Your task to perform on an android device: Where can I buy a nice beach tent? Image 0: 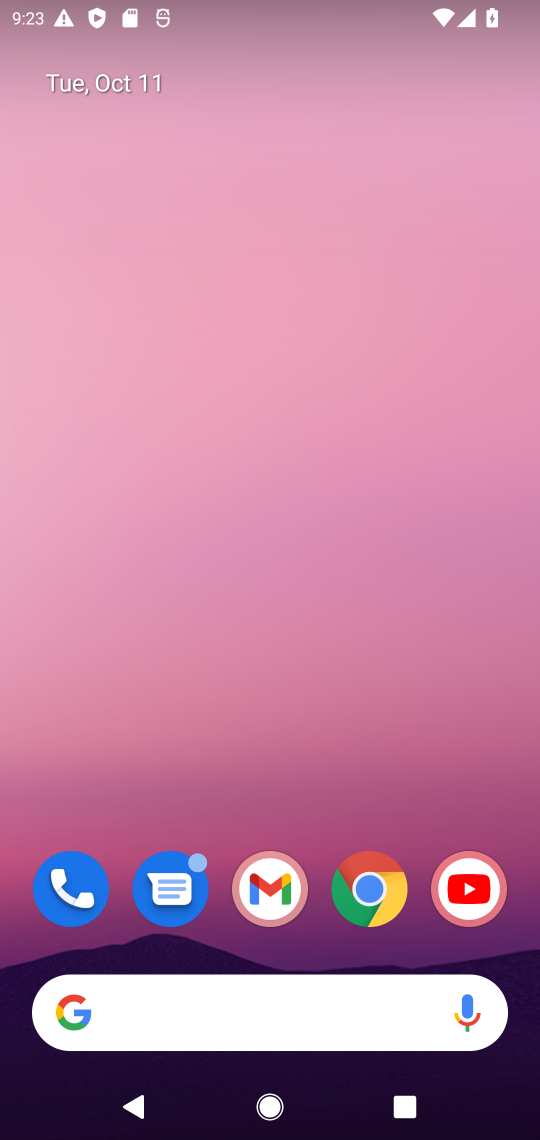
Step 0: click (417, 739)
Your task to perform on an android device: Where can I buy a nice beach tent? Image 1: 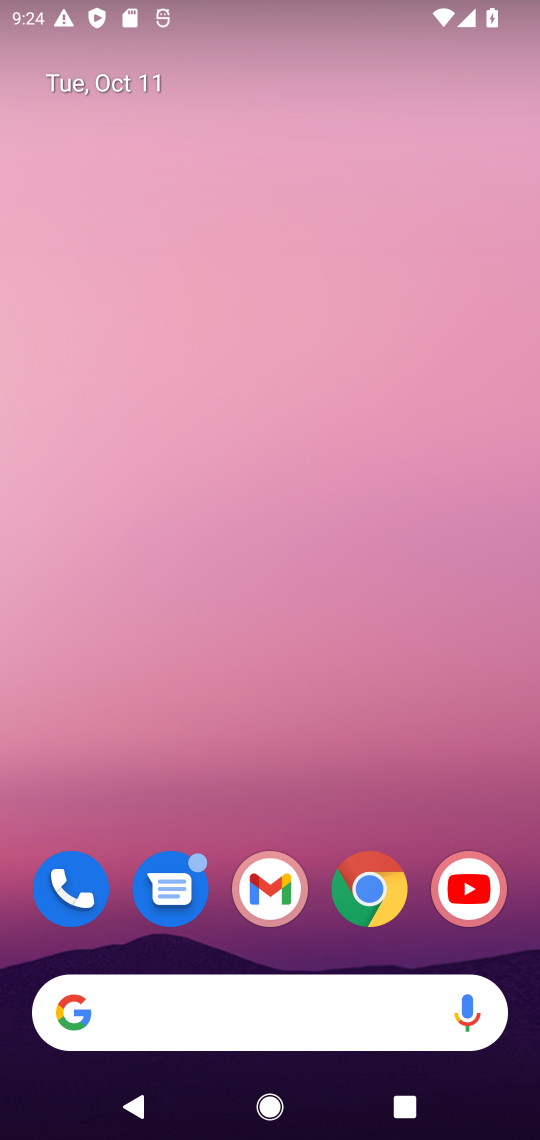
Step 1: click (155, 1015)
Your task to perform on an android device: Where can I buy a nice beach tent? Image 2: 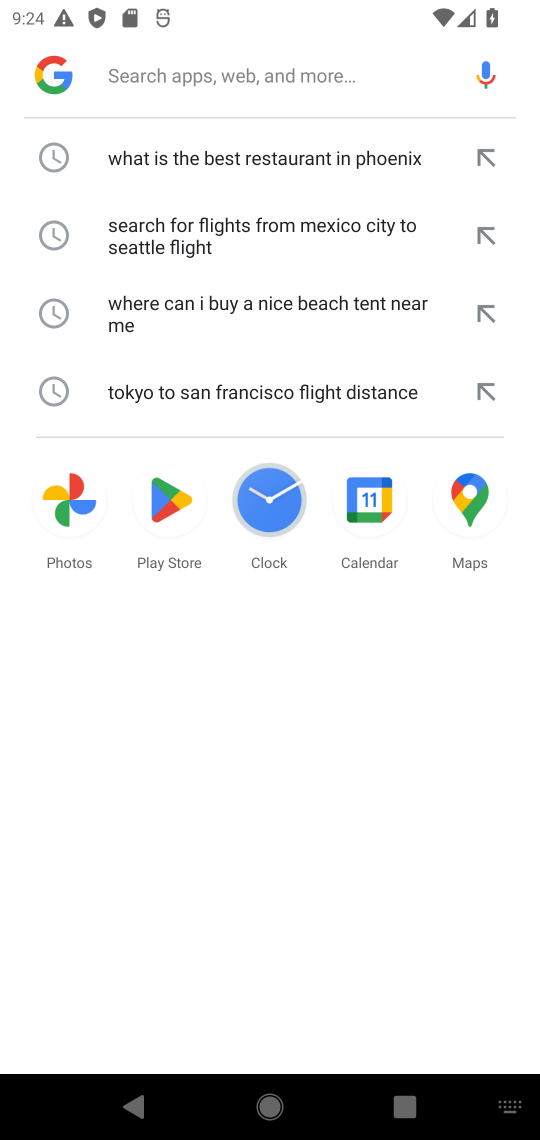
Step 2: type "where can i buy a nice beach tent?"
Your task to perform on an android device: Where can I buy a nice beach tent? Image 3: 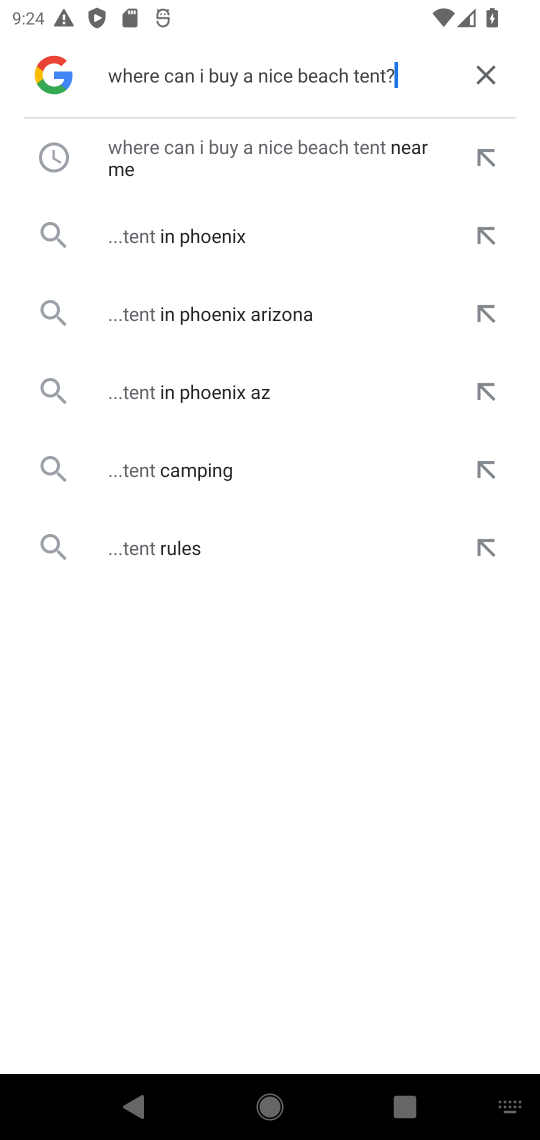
Step 3: click (279, 158)
Your task to perform on an android device: Where can I buy a nice beach tent? Image 4: 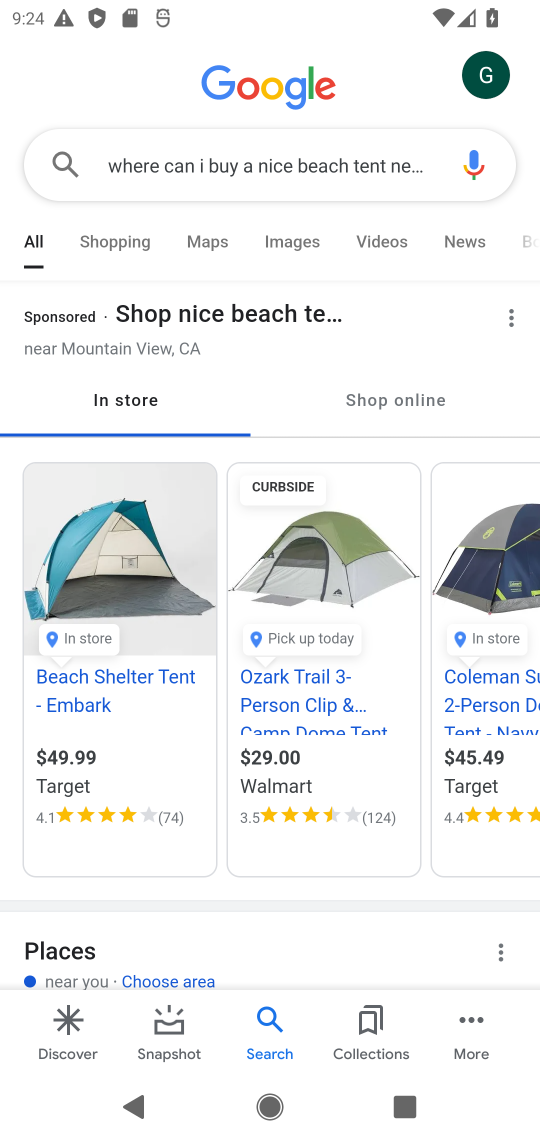
Step 4: task complete